Your task to perform on an android device: What's the weather going to be this weekend? Image 0: 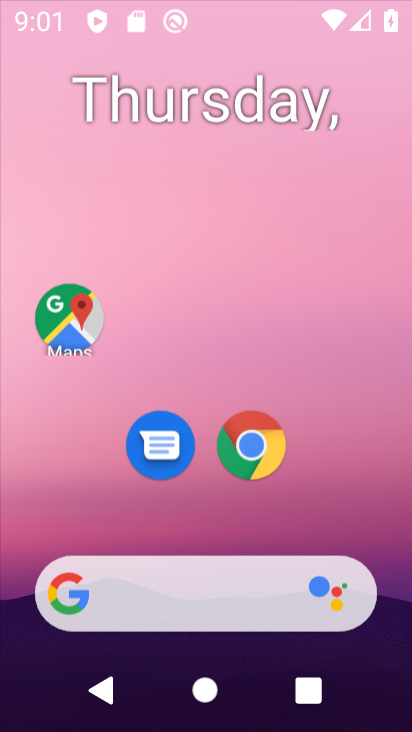
Step 0: drag from (249, 517) to (303, 208)
Your task to perform on an android device: What's the weather going to be this weekend? Image 1: 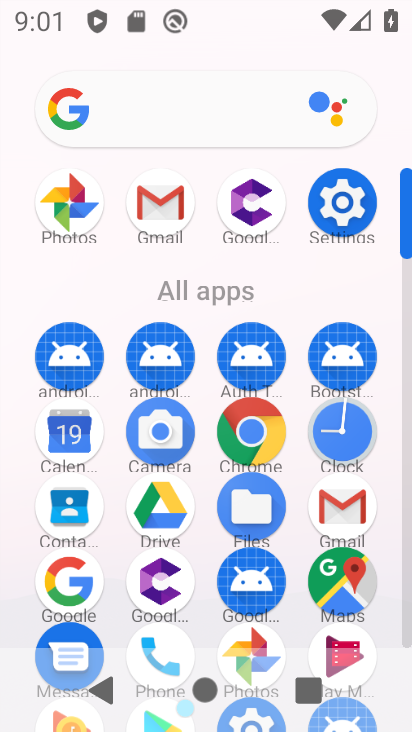
Step 1: click (58, 440)
Your task to perform on an android device: What's the weather going to be this weekend? Image 2: 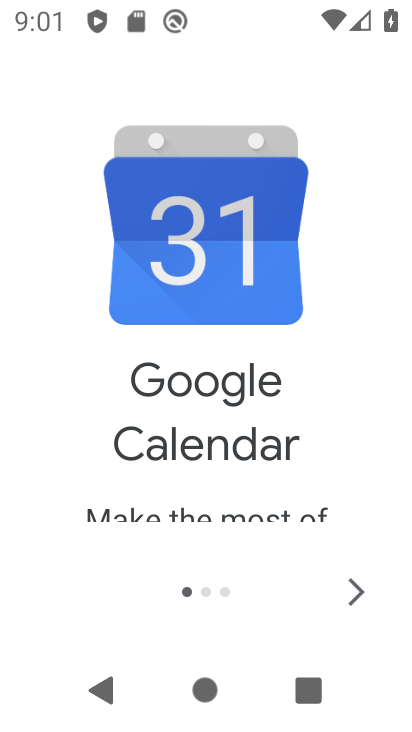
Step 2: click (346, 590)
Your task to perform on an android device: What's the weather going to be this weekend? Image 3: 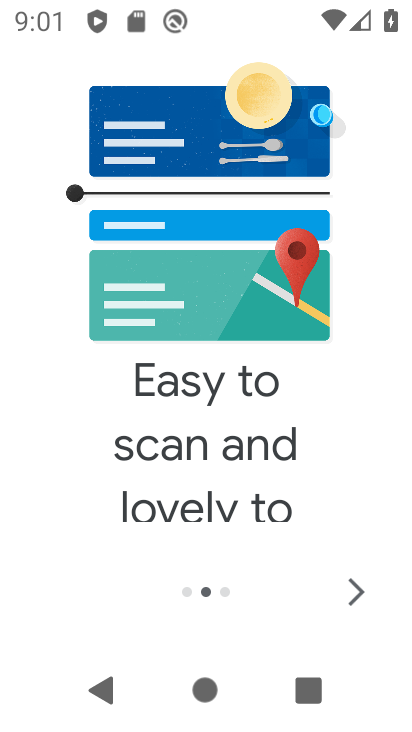
Step 3: click (346, 589)
Your task to perform on an android device: What's the weather going to be this weekend? Image 4: 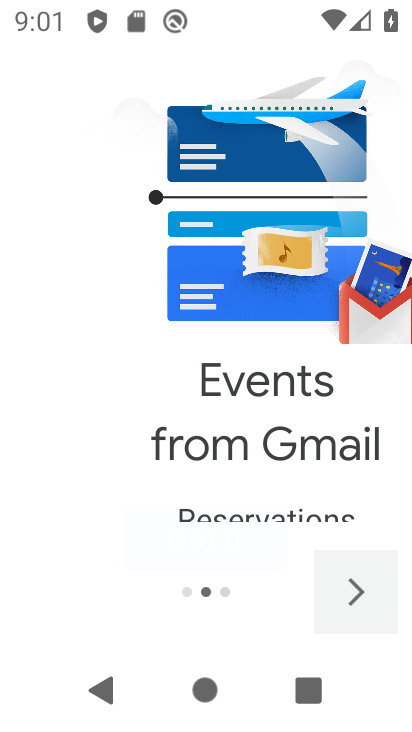
Step 4: click (346, 589)
Your task to perform on an android device: What's the weather going to be this weekend? Image 5: 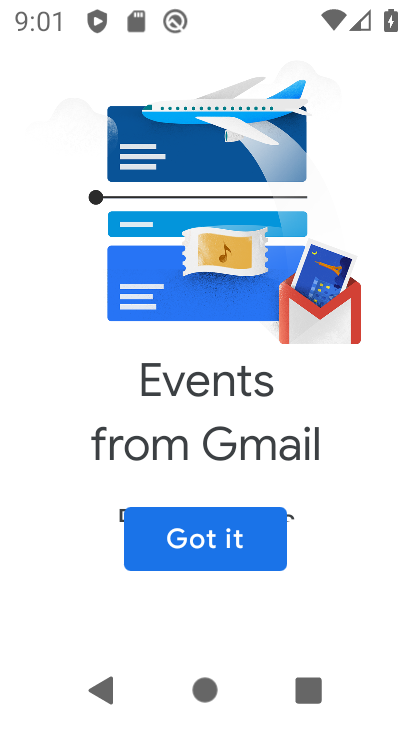
Step 5: click (237, 532)
Your task to perform on an android device: What's the weather going to be this weekend? Image 6: 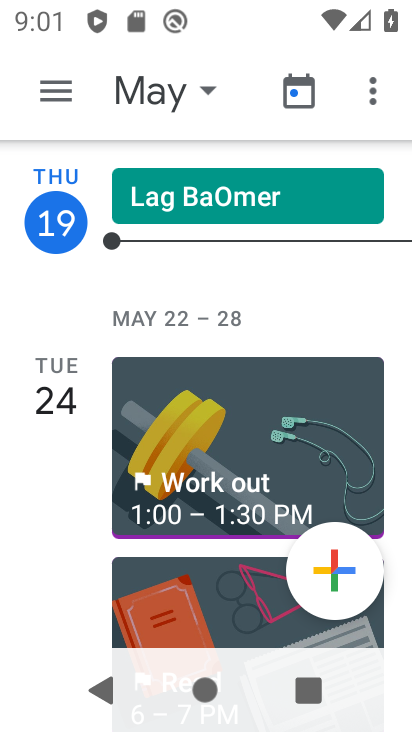
Step 6: drag from (215, 576) to (295, 233)
Your task to perform on an android device: What's the weather going to be this weekend? Image 7: 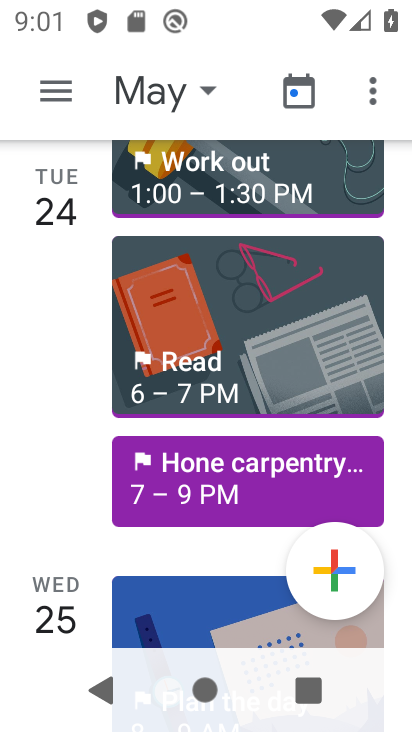
Step 7: drag from (298, 230) to (263, 597)
Your task to perform on an android device: What's the weather going to be this weekend? Image 8: 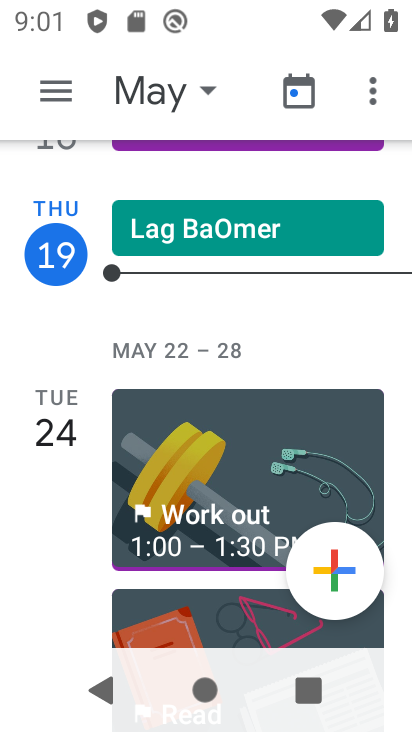
Step 8: click (165, 86)
Your task to perform on an android device: What's the weather going to be this weekend? Image 9: 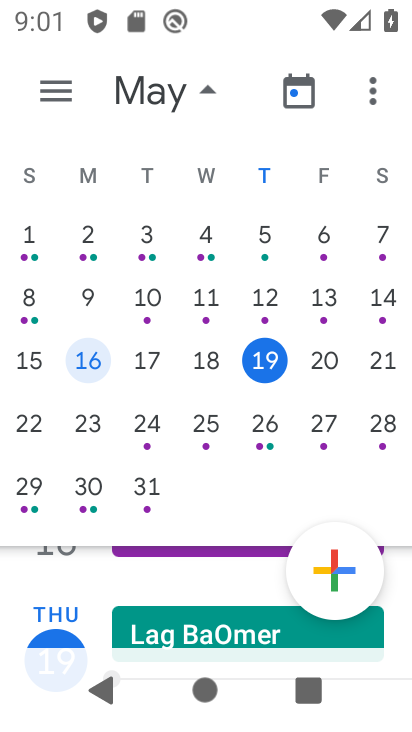
Step 9: press home button
Your task to perform on an android device: What's the weather going to be this weekend? Image 10: 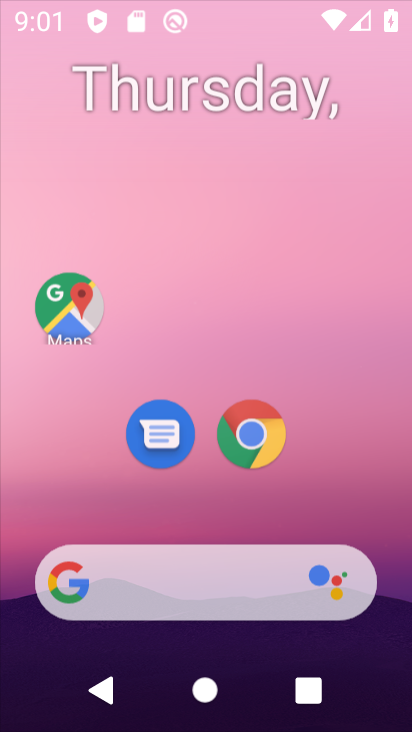
Step 10: drag from (196, 573) to (300, 112)
Your task to perform on an android device: What's the weather going to be this weekend? Image 11: 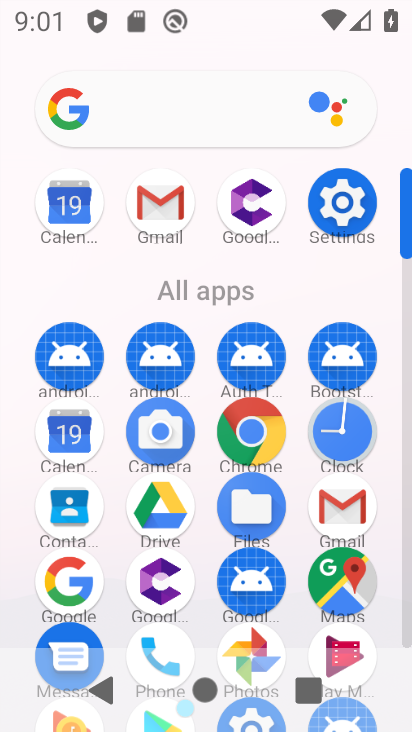
Step 11: click (205, 125)
Your task to perform on an android device: What's the weather going to be this weekend? Image 12: 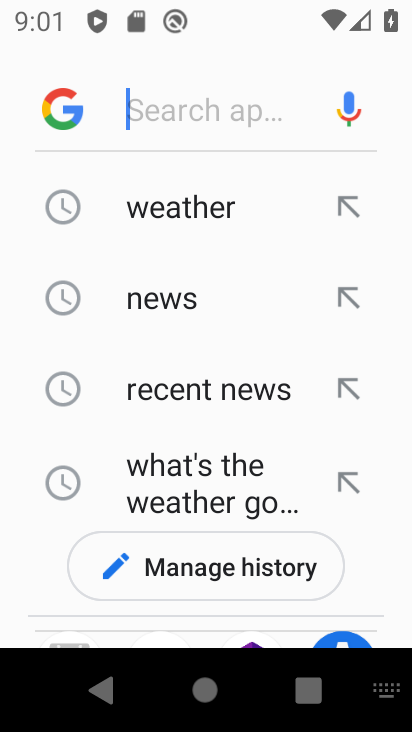
Step 12: type "What's the weather going to be this weekend?"
Your task to perform on an android device: What's the weather going to be this weekend? Image 13: 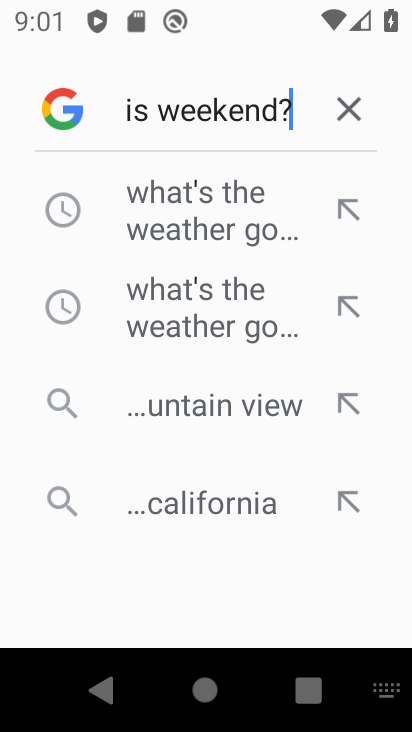
Step 13: type ""
Your task to perform on an android device: What's the weather going to be this weekend? Image 14: 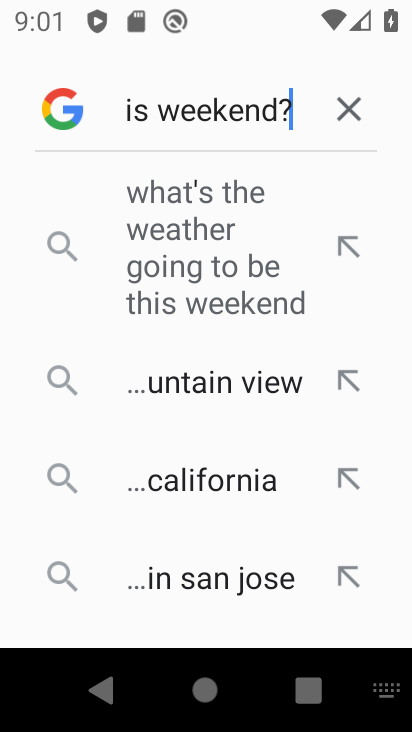
Step 14: click (124, 214)
Your task to perform on an android device: What's the weather going to be this weekend? Image 15: 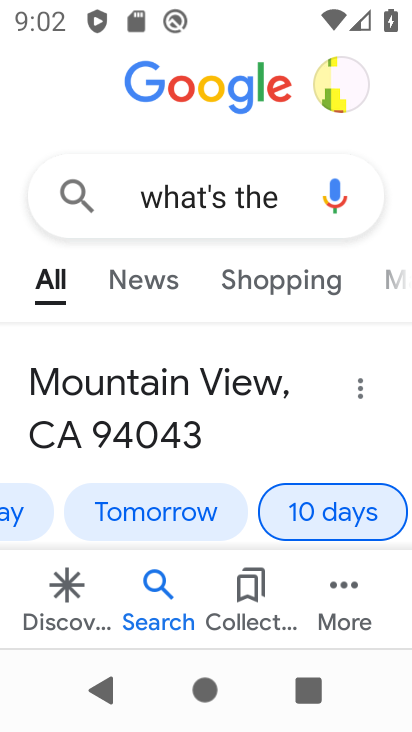
Step 15: task complete